Your task to perform on an android device: check google app version Image 0: 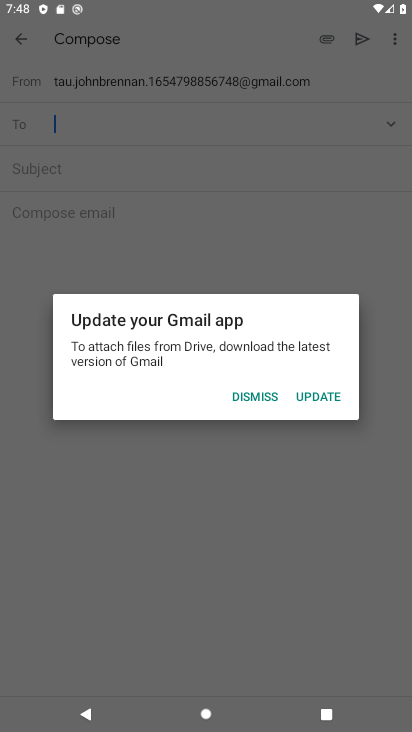
Step 0: press home button
Your task to perform on an android device: check google app version Image 1: 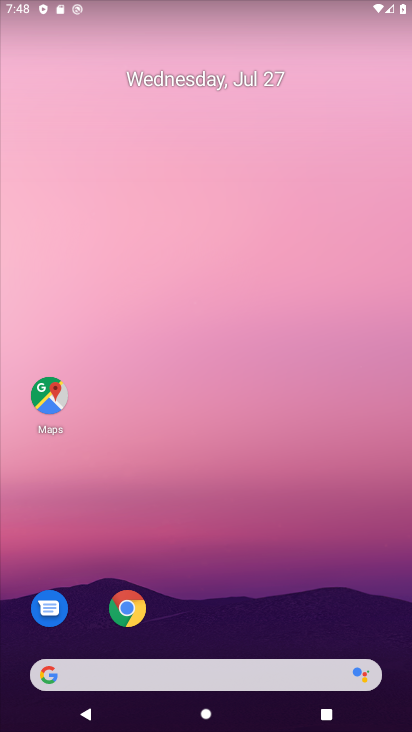
Step 1: drag from (243, 534) to (242, 232)
Your task to perform on an android device: check google app version Image 2: 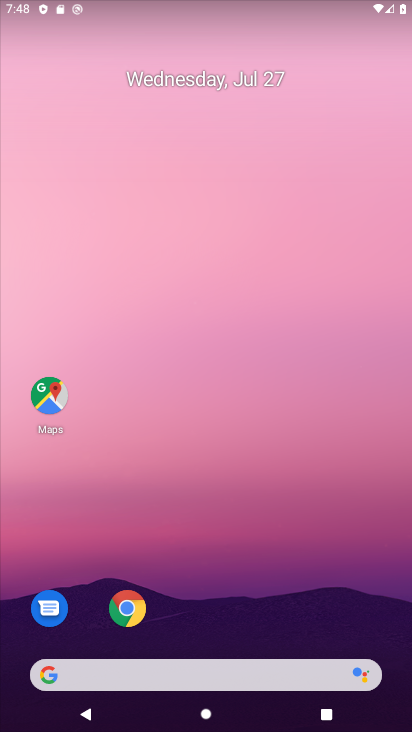
Step 2: click (224, 686)
Your task to perform on an android device: check google app version Image 3: 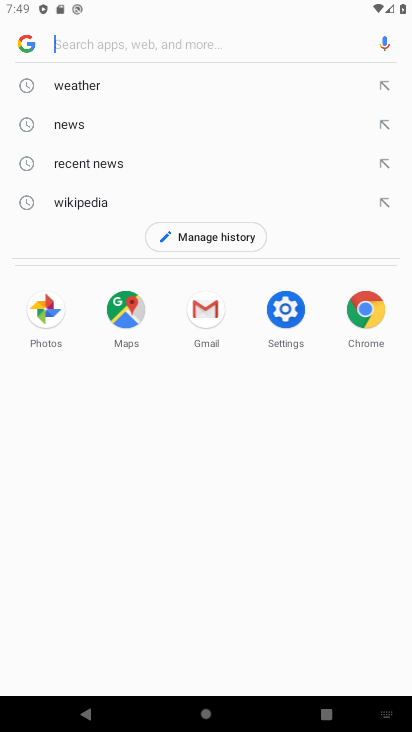
Step 3: click (28, 41)
Your task to perform on an android device: check google app version Image 4: 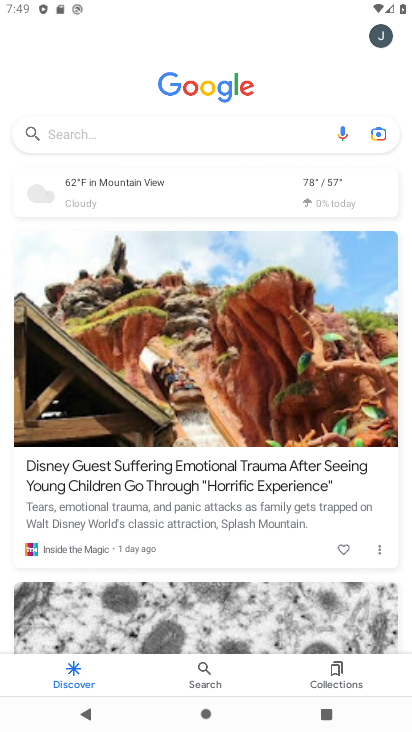
Step 4: click (392, 27)
Your task to perform on an android device: check google app version Image 5: 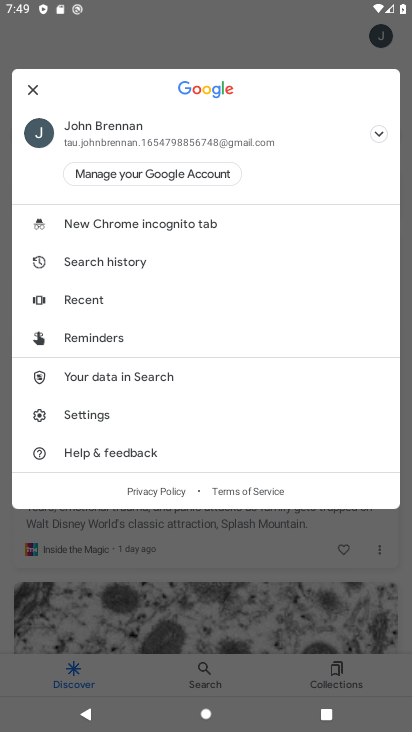
Step 5: click (92, 418)
Your task to perform on an android device: check google app version Image 6: 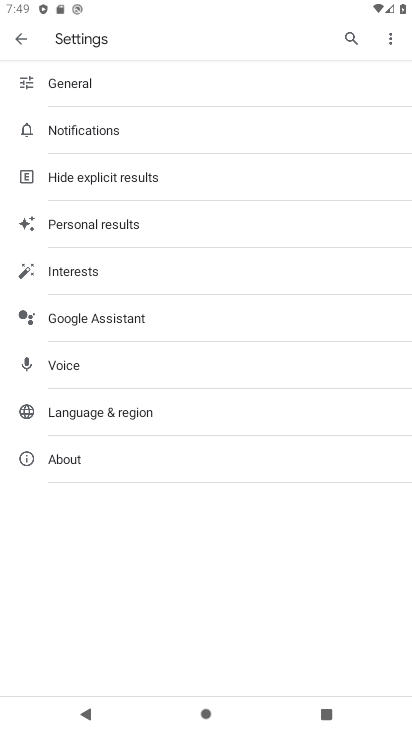
Step 6: task complete